Your task to perform on an android device: toggle pop-ups in chrome Image 0: 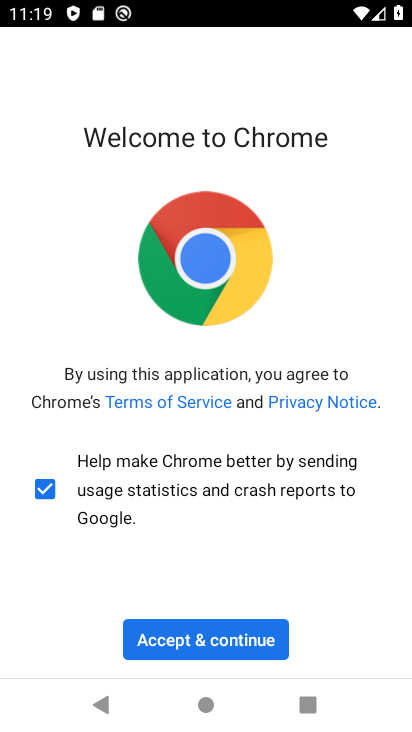
Step 0: click (251, 637)
Your task to perform on an android device: toggle pop-ups in chrome Image 1: 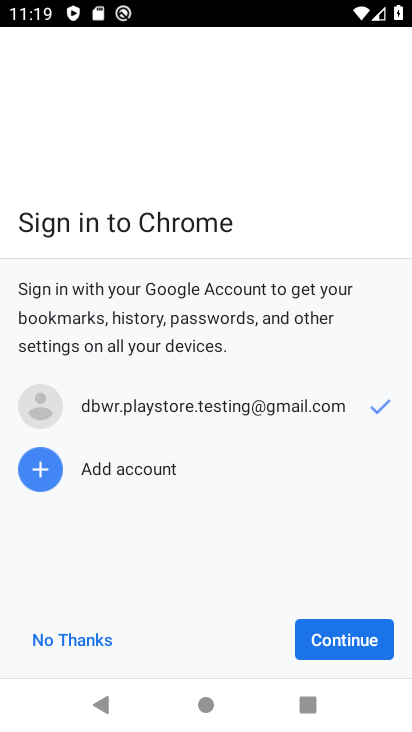
Step 1: click (312, 637)
Your task to perform on an android device: toggle pop-ups in chrome Image 2: 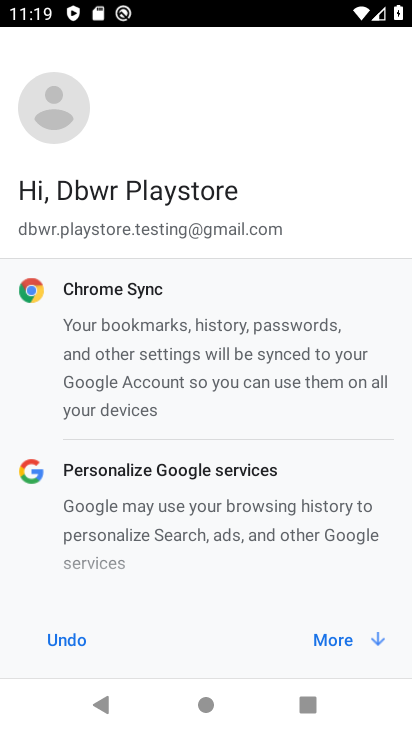
Step 2: click (341, 635)
Your task to perform on an android device: toggle pop-ups in chrome Image 3: 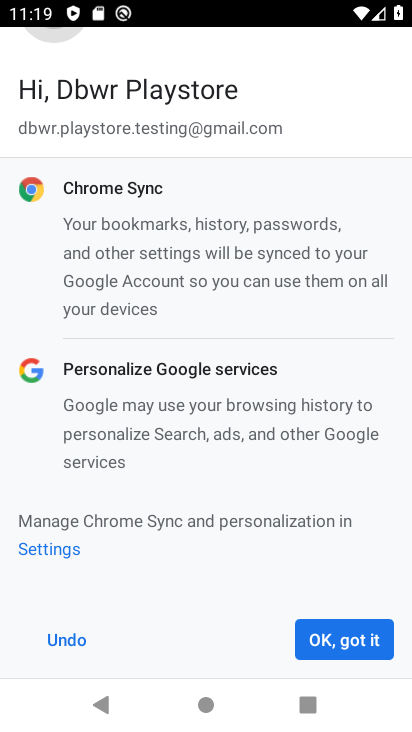
Step 3: click (341, 635)
Your task to perform on an android device: toggle pop-ups in chrome Image 4: 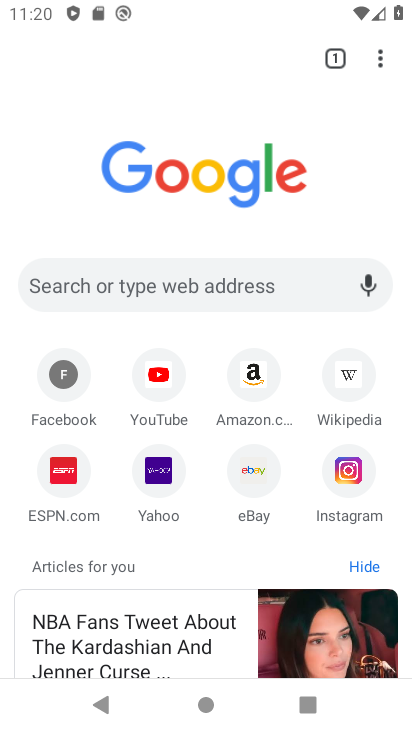
Step 4: click (382, 56)
Your task to perform on an android device: toggle pop-ups in chrome Image 5: 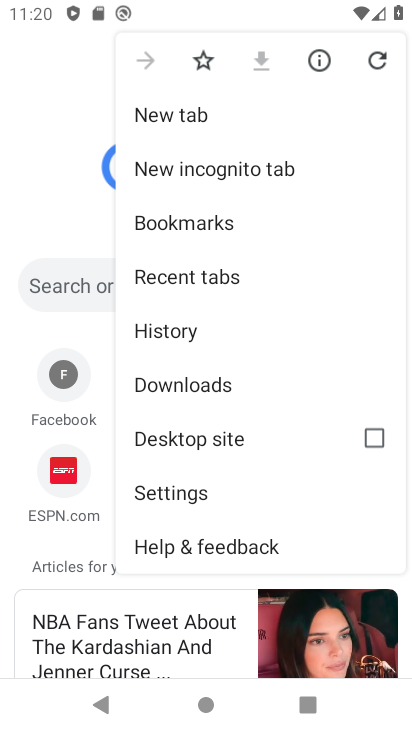
Step 5: click (182, 489)
Your task to perform on an android device: toggle pop-ups in chrome Image 6: 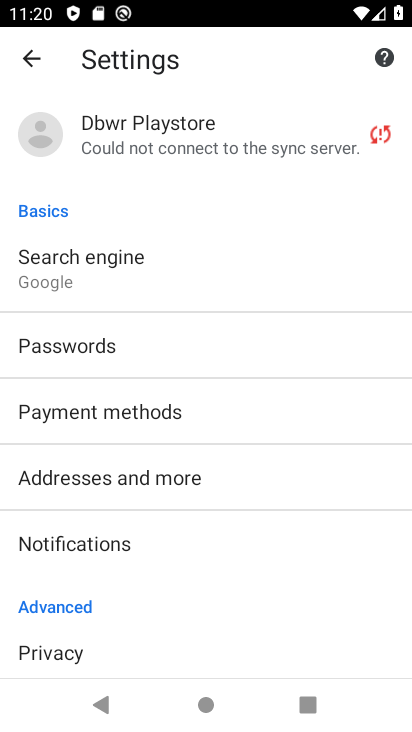
Step 6: drag from (288, 595) to (278, 347)
Your task to perform on an android device: toggle pop-ups in chrome Image 7: 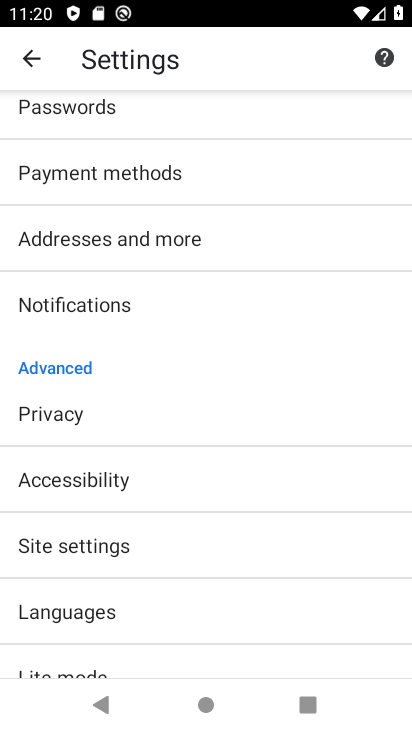
Step 7: drag from (236, 633) to (270, 401)
Your task to perform on an android device: toggle pop-ups in chrome Image 8: 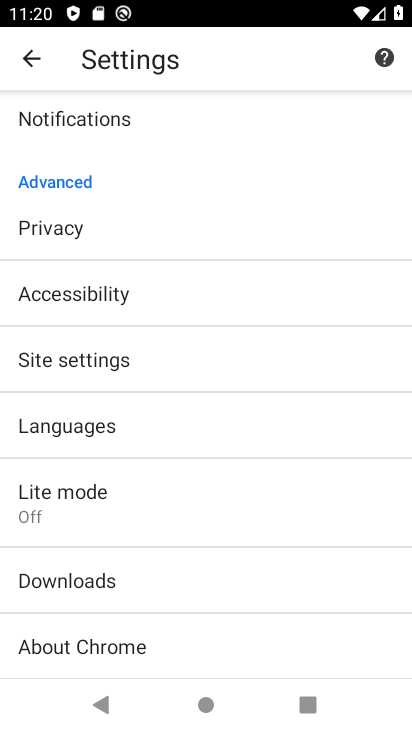
Step 8: drag from (266, 607) to (280, 350)
Your task to perform on an android device: toggle pop-ups in chrome Image 9: 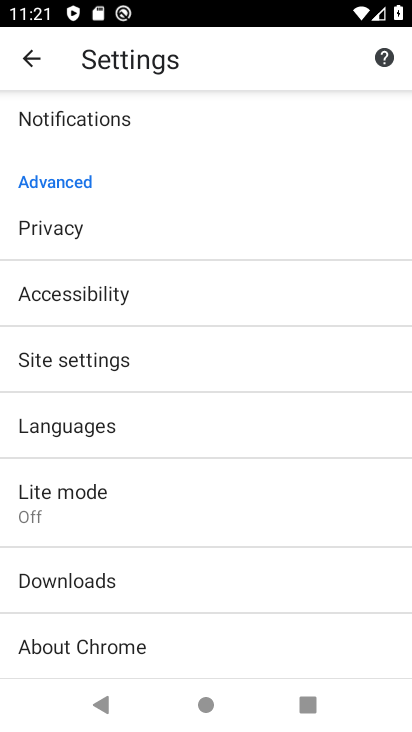
Step 9: click (103, 362)
Your task to perform on an android device: toggle pop-ups in chrome Image 10: 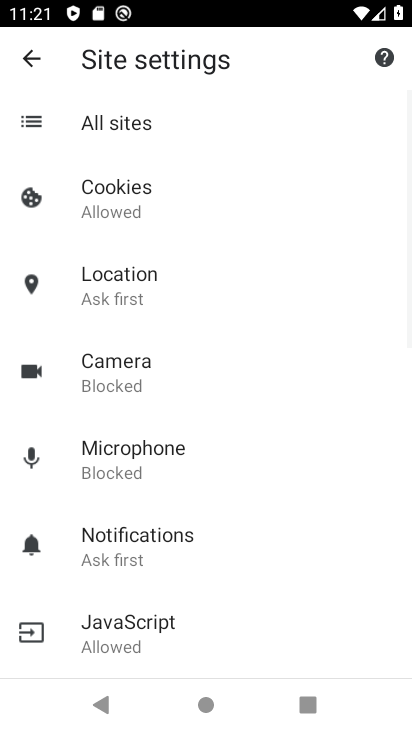
Step 10: drag from (282, 503) to (281, 362)
Your task to perform on an android device: toggle pop-ups in chrome Image 11: 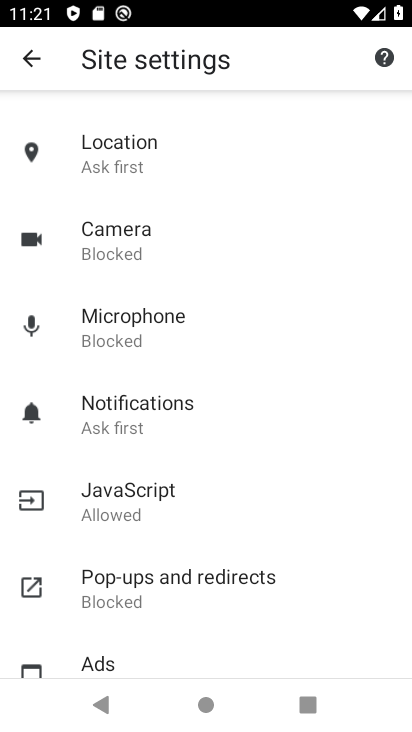
Step 11: click (131, 584)
Your task to perform on an android device: toggle pop-ups in chrome Image 12: 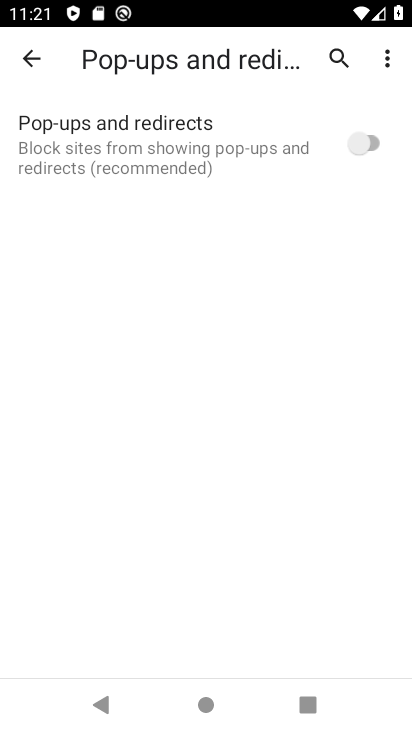
Step 12: click (368, 140)
Your task to perform on an android device: toggle pop-ups in chrome Image 13: 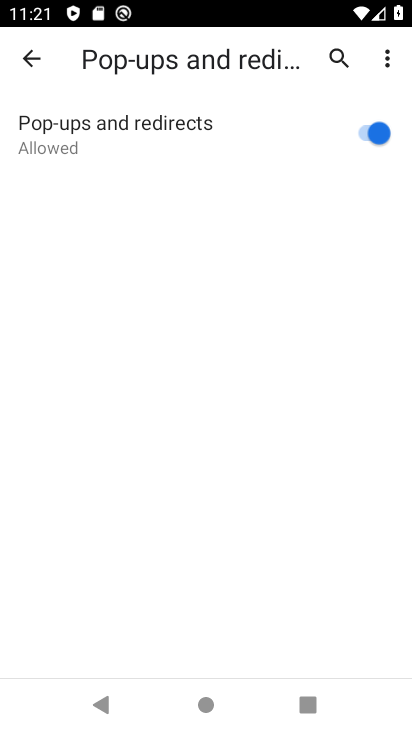
Step 13: task complete